Your task to perform on an android device: Go to settings Image 0: 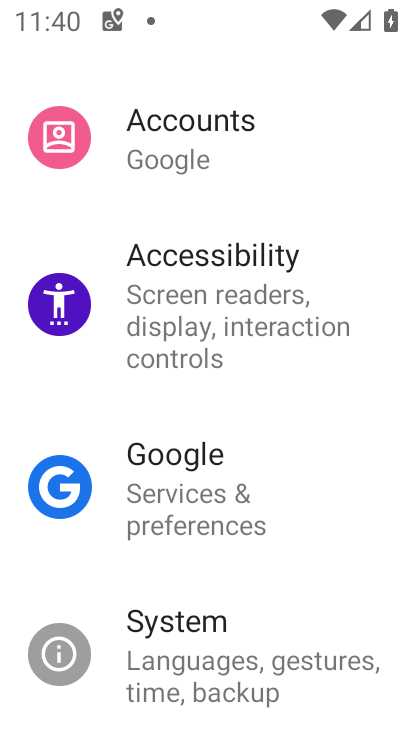
Step 0: task complete